Your task to perform on an android device: add a label to a message in the gmail app Image 0: 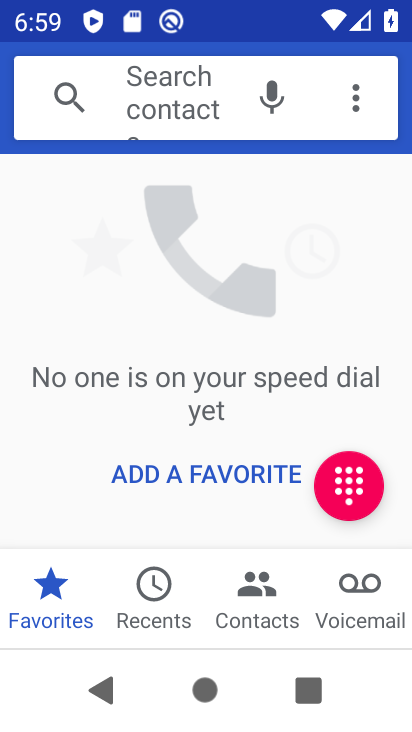
Step 0: press home button
Your task to perform on an android device: add a label to a message in the gmail app Image 1: 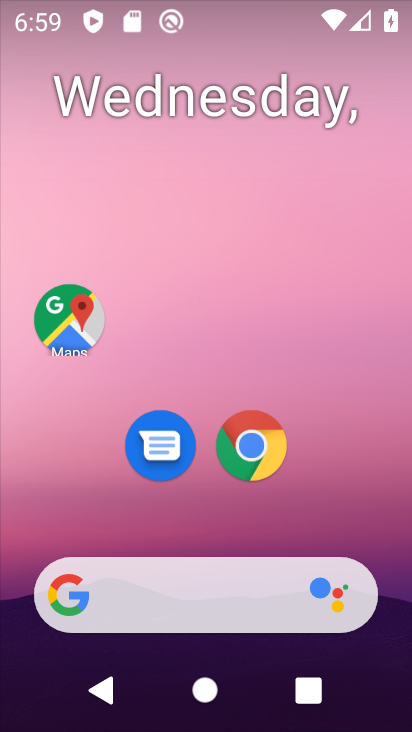
Step 1: drag from (349, 510) to (274, 93)
Your task to perform on an android device: add a label to a message in the gmail app Image 2: 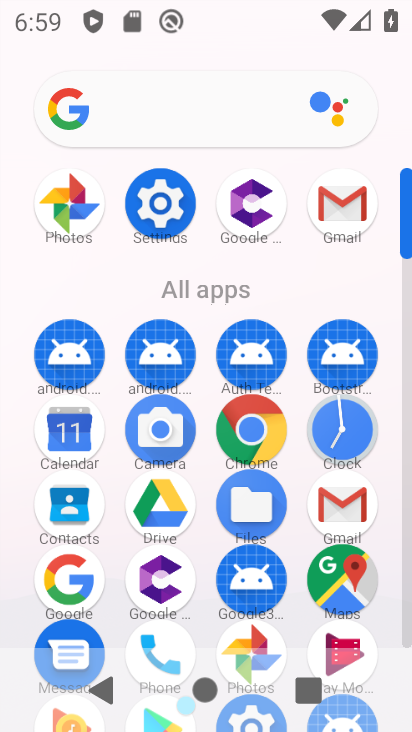
Step 2: click (329, 205)
Your task to perform on an android device: add a label to a message in the gmail app Image 3: 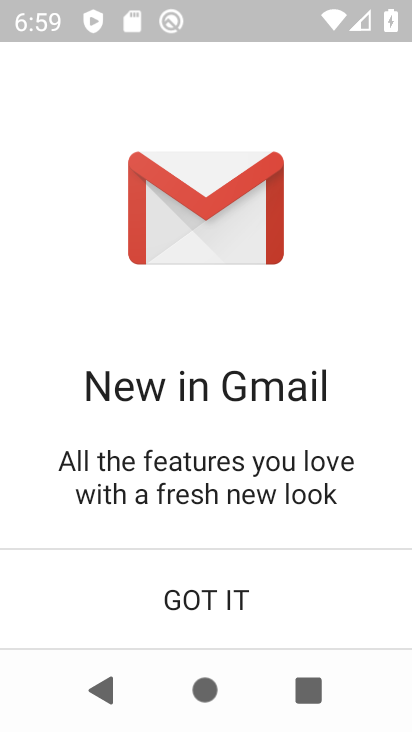
Step 3: click (250, 582)
Your task to perform on an android device: add a label to a message in the gmail app Image 4: 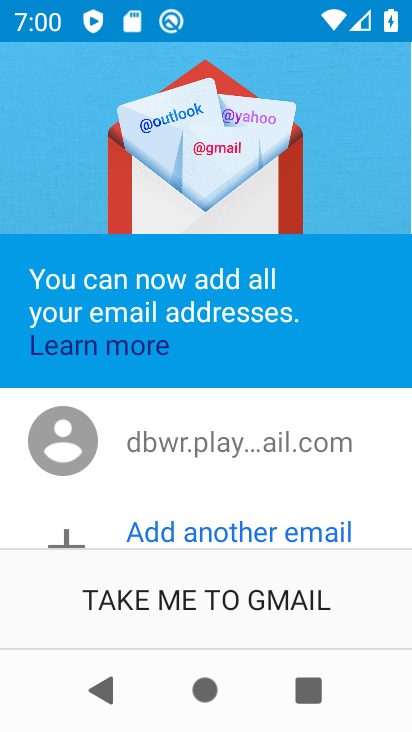
Step 4: click (332, 599)
Your task to perform on an android device: add a label to a message in the gmail app Image 5: 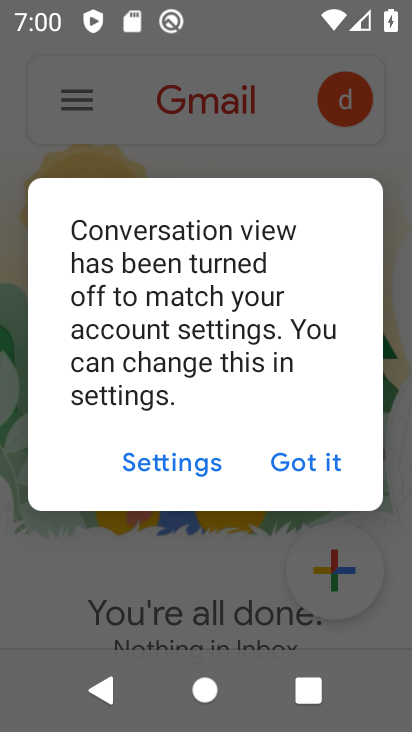
Step 5: click (288, 474)
Your task to perform on an android device: add a label to a message in the gmail app Image 6: 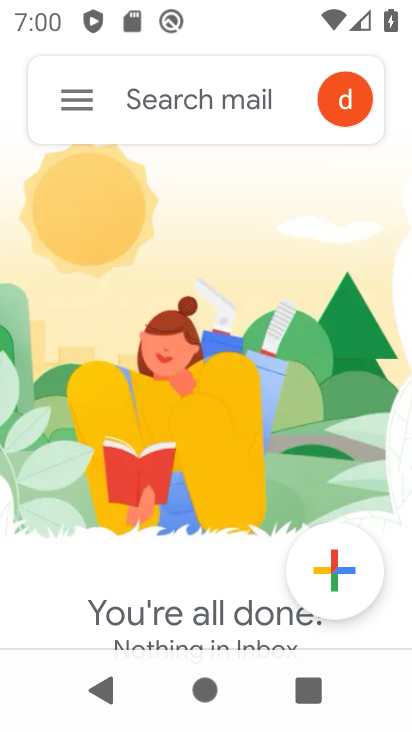
Step 6: click (77, 85)
Your task to perform on an android device: add a label to a message in the gmail app Image 7: 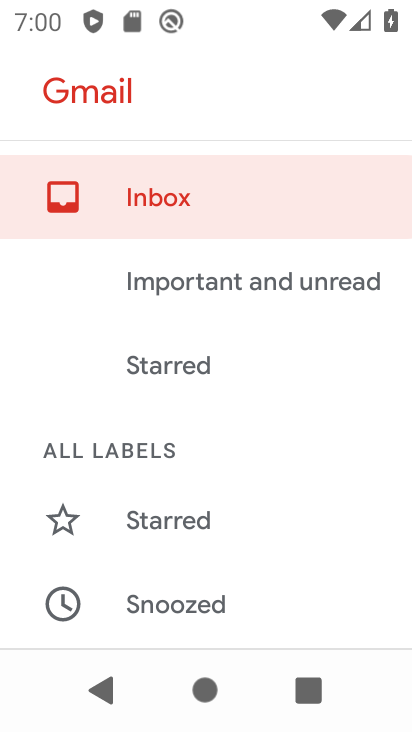
Step 7: task complete